Your task to perform on an android device: Search for "logitech g933" on bestbuy, select the first entry, and add it to the cart. Image 0: 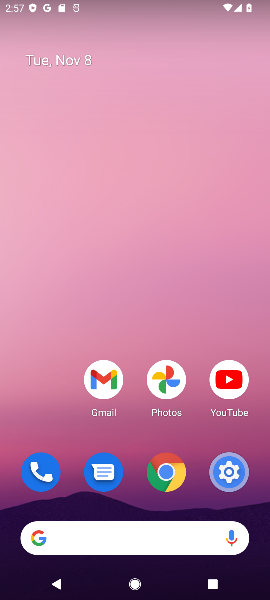
Step 0: click (111, 543)
Your task to perform on an android device: Search for "logitech g933" on bestbuy, select the first entry, and add it to the cart. Image 1: 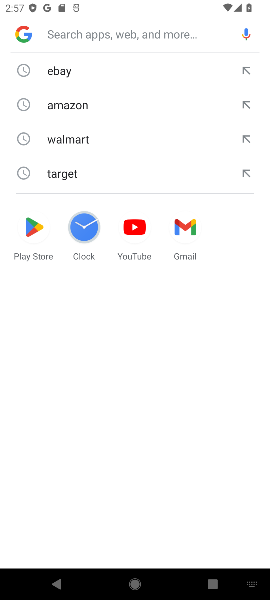
Step 1: type "bestbuy"
Your task to perform on an android device: Search for "logitech g933" on bestbuy, select the first entry, and add it to the cart. Image 2: 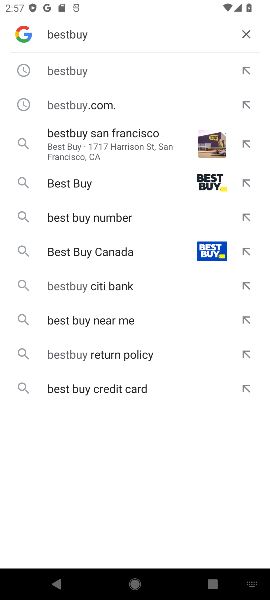
Step 2: click (114, 186)
Your task to perform on an android device: Search for "logitech g933" on bestbuy, select the first entry, and add it to the cart. Image 3: 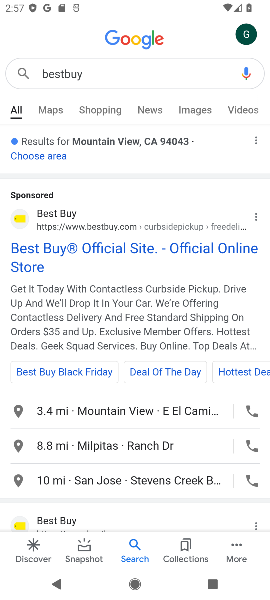
Step 3: click (111, 260)
Your task to perform on an android device: Search for "logitech g933" on bestbuy, select the first entry, and add it to the cart. Image 4: 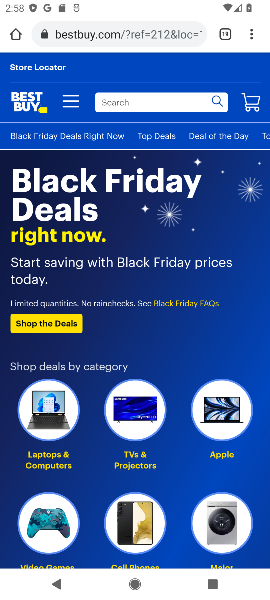
Step 4: click (133, 93)
Your task to perform on an android device: Search for "logitech g933" on bestbuy, select the first entry, and add it to the cart. Image 5: 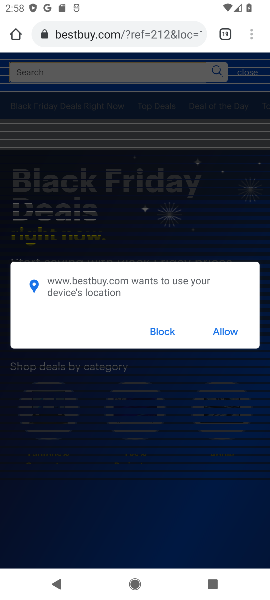
Step 5: click (162, 336)
Your task to perform on an android device: Search for "logitech g933" on bestbuy, select the first entry, and add it to the cart. Image 6: 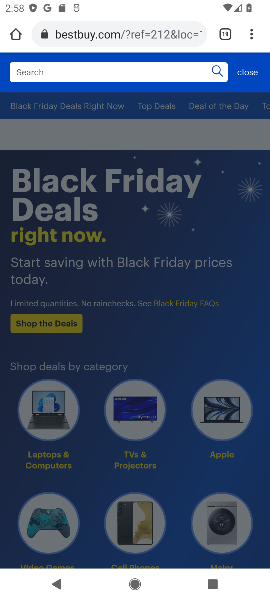
Step 6: click (186, 74)
Your task to perform on an android device: Search for "logitech g933" on bestbuy, select the first entry, and add it to the cart. Image 7: 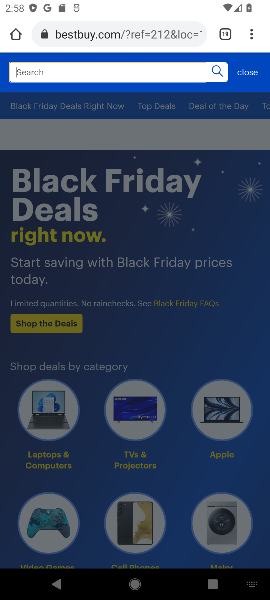
Step 7: type "logitech g933"
Your task to perform on an android device: Search for "logitech g933" on bestbuy, select the first entry, and add it to the cart. Image 8: 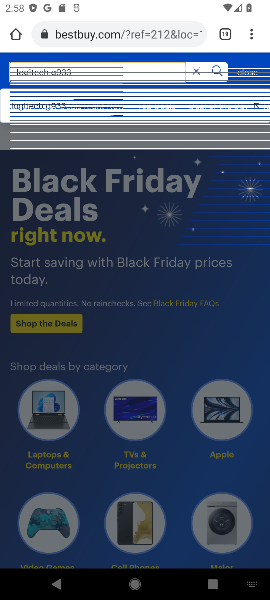
Step 8: click (44, 111)
Your task to perform on an android device: Search for "logitech g933" on bestbuy, select the first entry, and add it to the cart. Image 9: 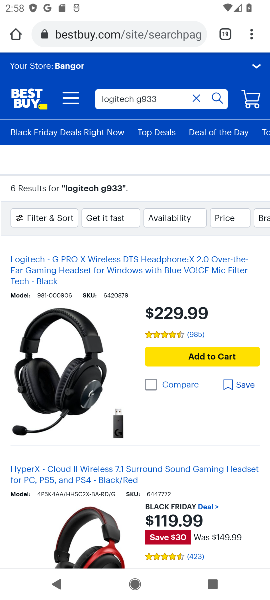
Step 9: click (197, 316)
Your task to perform on an android device: Search for "logitech g933" on bestbuy, select the first entry, and add it to the cart. Image 10: 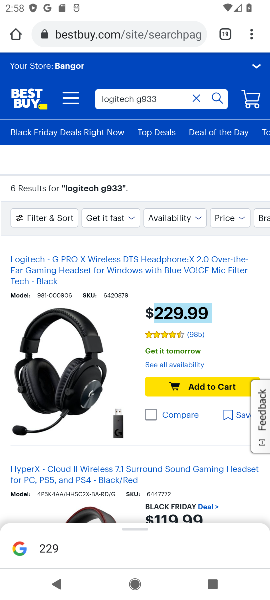
Step 10: click (216, 392)
Your task to perform on an android device: Search for "logitech g933" on bestbuy, select the first entry, and add it to the cart. Image 11: 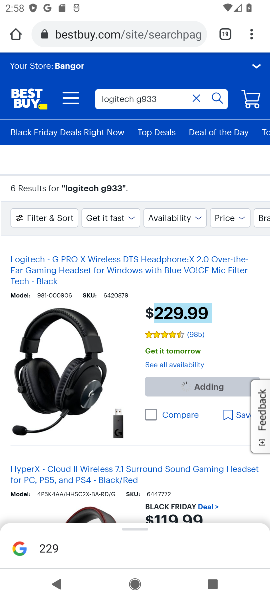
Step 11: task complete